Your task to perform on an android device: See recent photos Image 0: 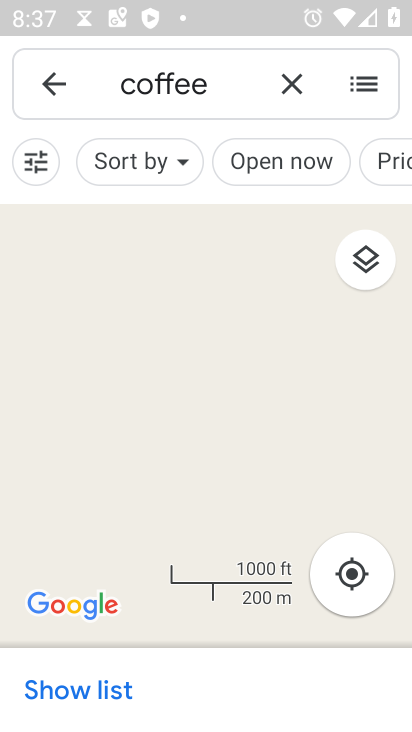
Step 0: press back button
Your task to perform on an android device: See recent photos Image 1: 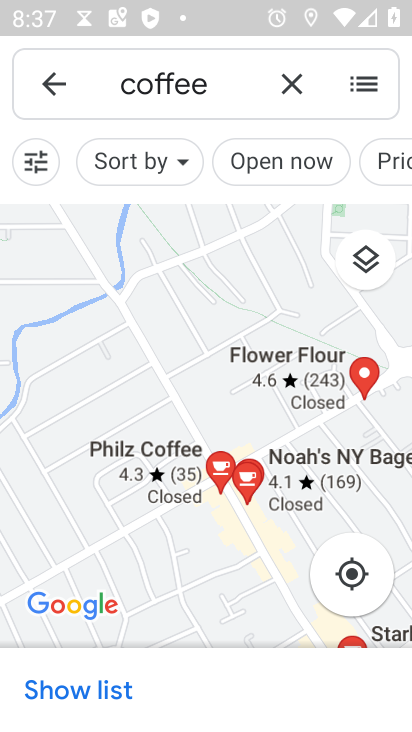
Step 1: press back button
Your task to perform on an android device: See recent photos Image 2: 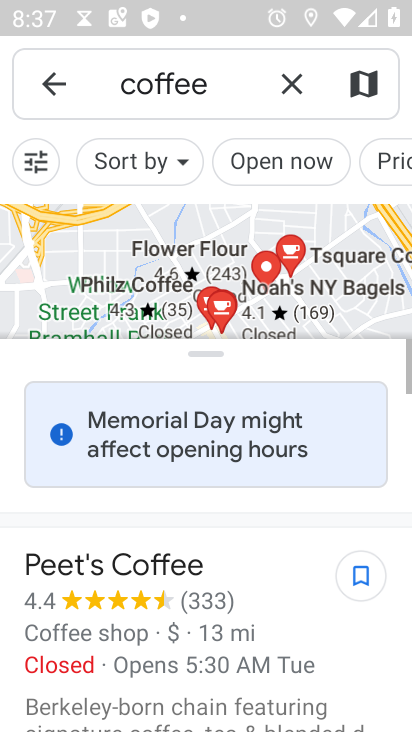
Step 2: click (41, 80)
Your task to perform on an android device: See recent photos Image 3: 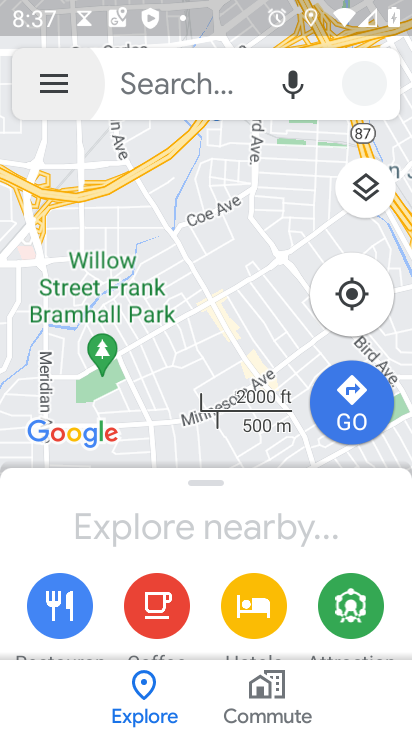
Step 3: press back button
Your task to perform on an android device: See recent photos Image 4: 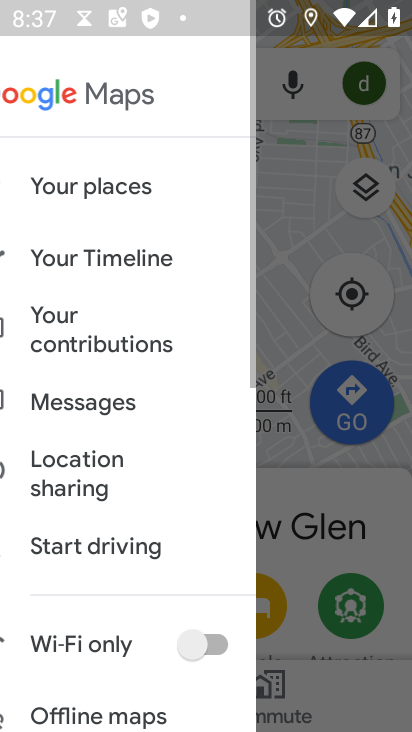
Step 4: press back button
Your task to perform on an android device: See recent photos Image 5: 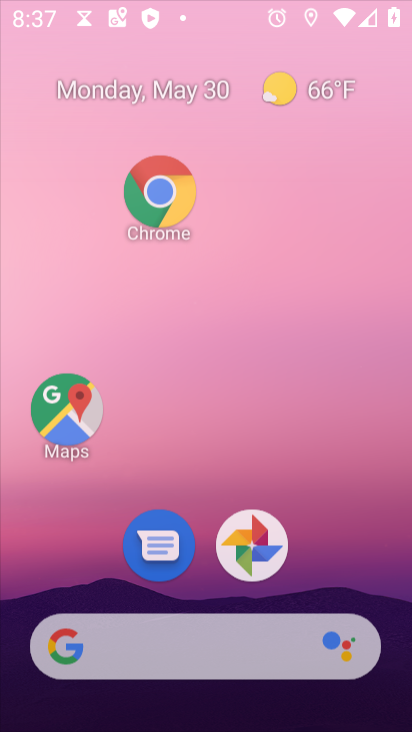
Step 5: press home button
Your task to perform on an android device: See recent photos Image 6: 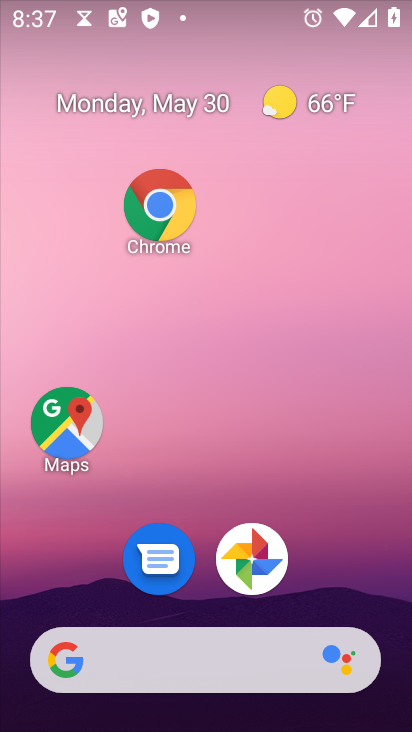
Step 6: drag from (297, 709) to (242, 90)
Your task to perform on an android device: See recent photos Image 7: 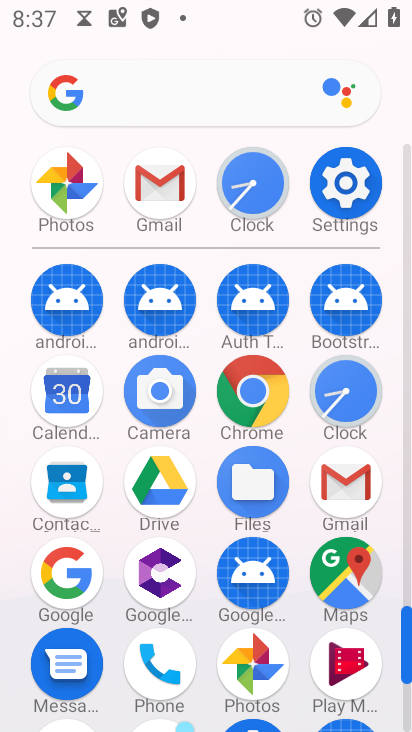
Step 7: click (250, 676)
Your task to perform on an android device: See recent photos Image 8: 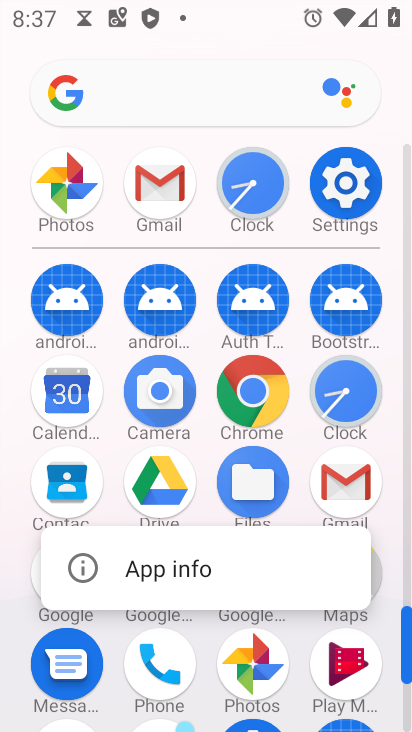
Step 8: click (260, 678)
Your task to perform on an android device: See recent photos Image 9: 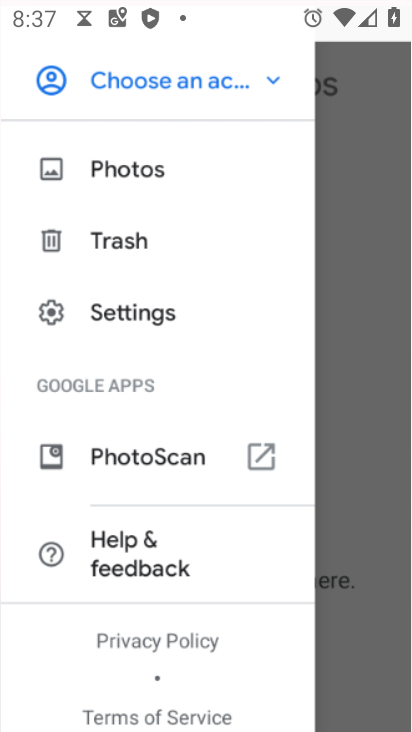
Step 9: click (258, 664)
Your task to perform on an android device: See recent photos Image 10: 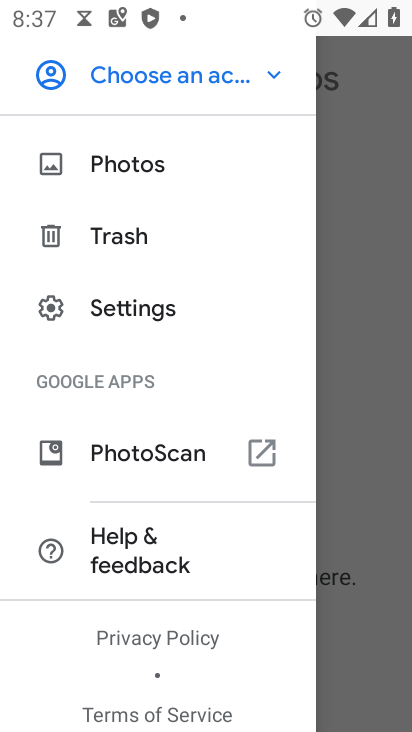
Step 10: click (258, 671)
Your task to perform on an android device: See recent photos Image 11: 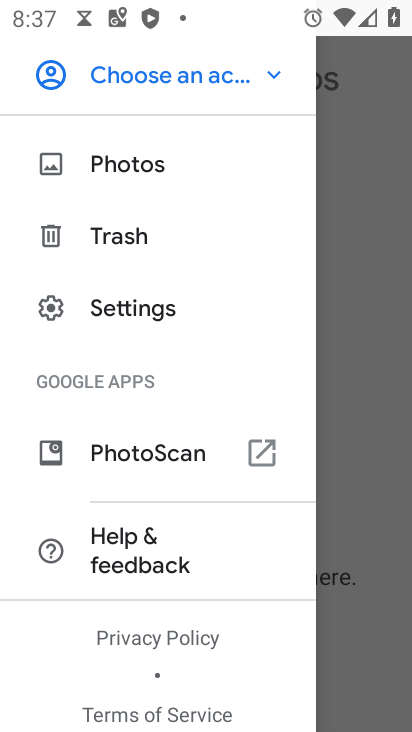
Step 11: click (150, 164)
Your task to perform on an android device: See recent photos Image 12: 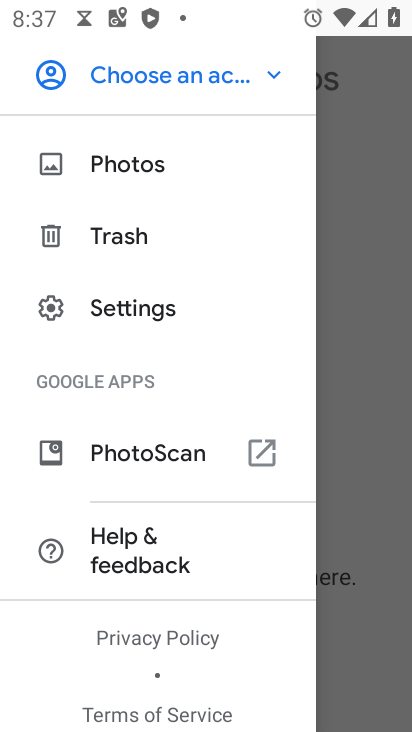
Step 12: click (150, 163)
Your task to perform on an android device: See recent photos Image 13: 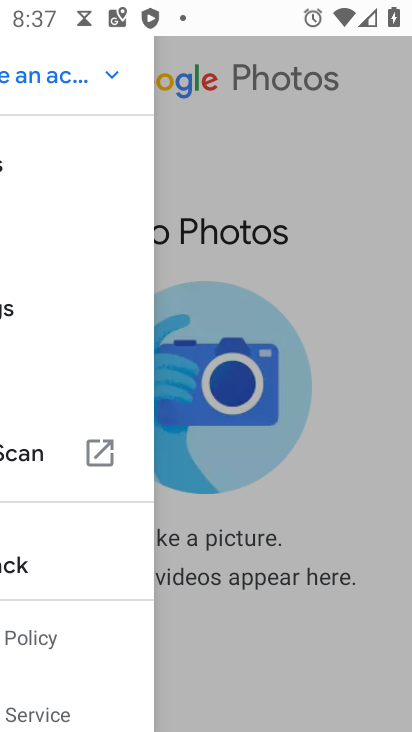
Step 13: click (151, 164)
Your task to perform on an android device: See recent photos Image 14: 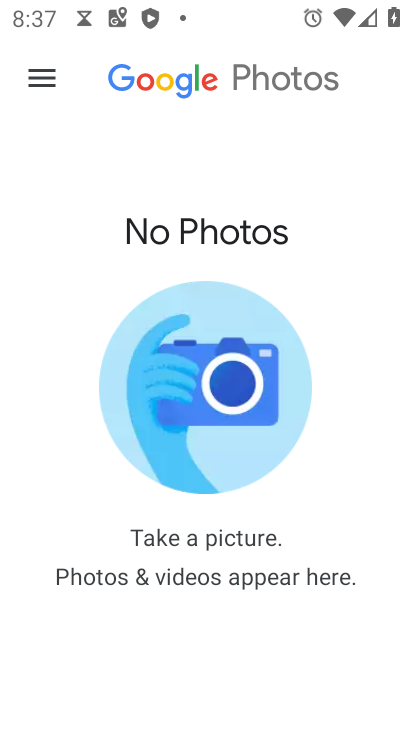
Step 14: task complete